Your task to perform on an android device: open a bookmark in the chrome app Image 0: 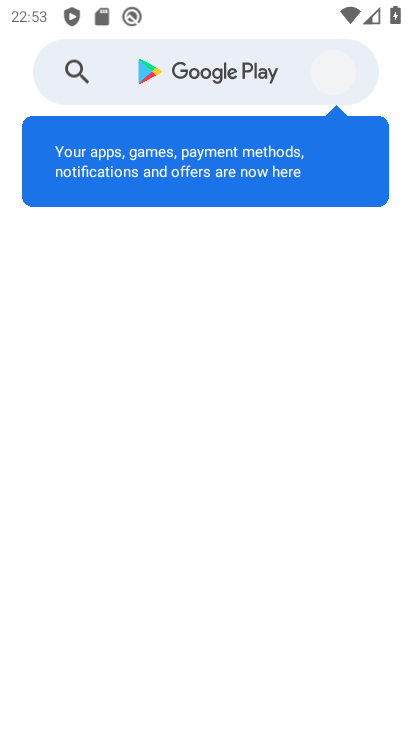
Step 0: press home button
Your task to perform on an android device: open a bookmark in the chrome app Image 1: 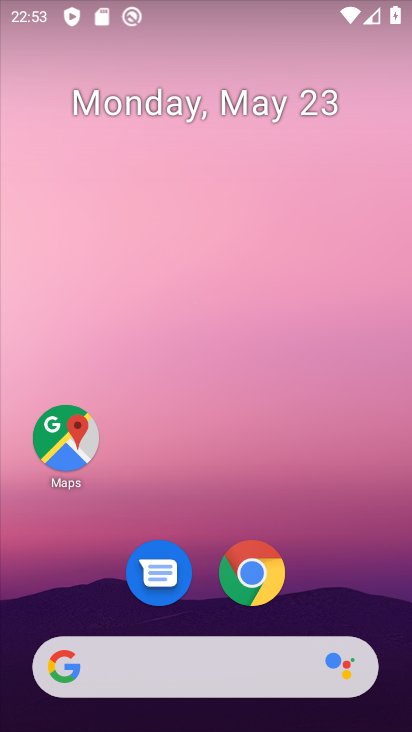
Step 1: drag from (377, 566) to (340, 114)
Your task to perform on an android device: open a bookmark in the chrome app Image 2: 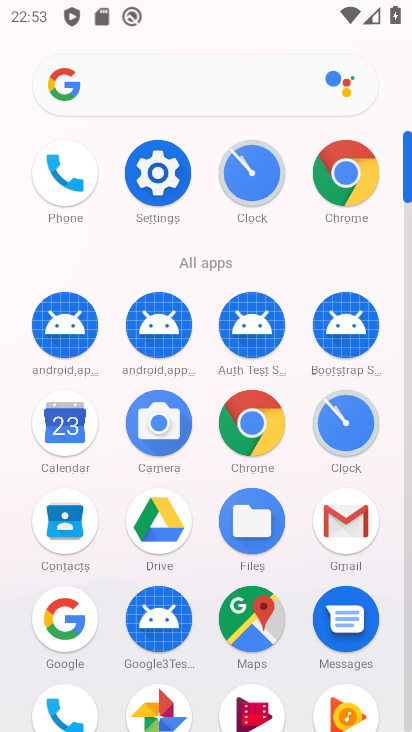
Step 2: click (278, 433)
Your task to perform on an android device: open a bookmark in the chrome app Image 3: 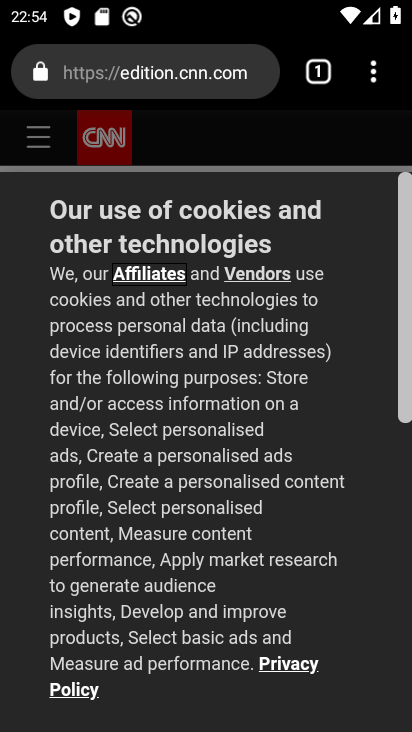
Step 3: click (382, 84)
Your task to perform on an android device: open a bookmark in the chrome app Image 4: 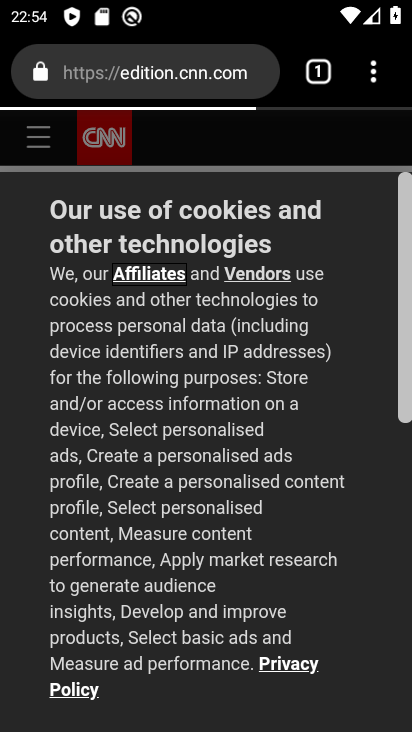
Step 4: task complete